Your task to perform on an android device: turn pop-ups off in chrome Image 0: 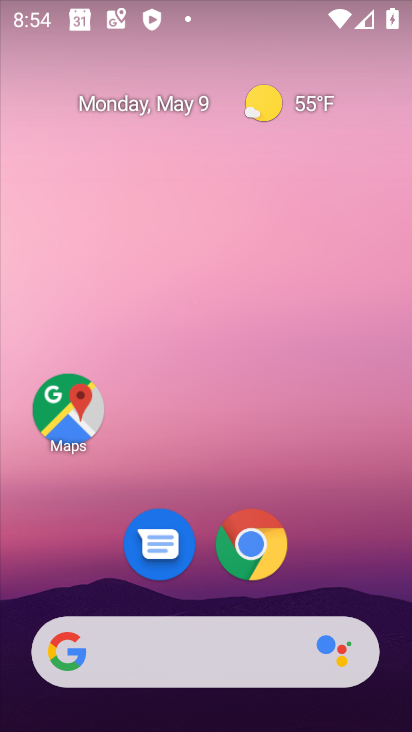
Step 0: click (247, 568)
Your task to perform on an android device: turn pop-ups off in chrome Image 1: 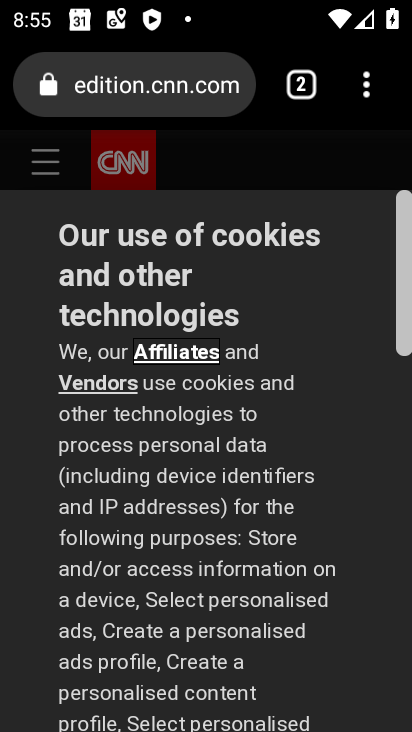
Step 1: click (351, 85)
Your task to perform on an android device: turn pop-ups off in chrome Image 2: 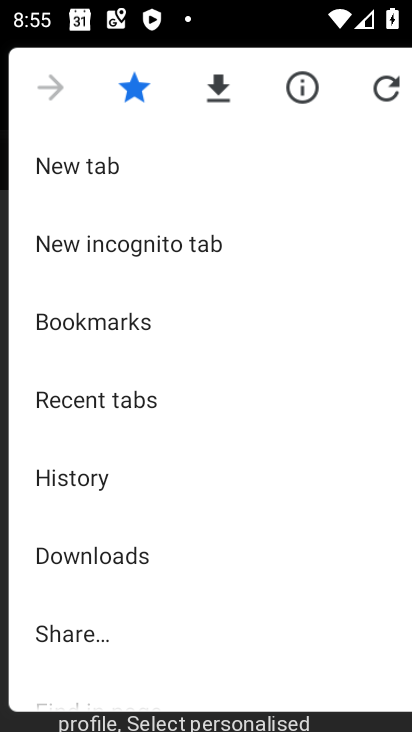
Step 2: drag from (229, 709) to (218, 433)
Your task to perform on an android device: turn pop-ups off in chrome Image 3: 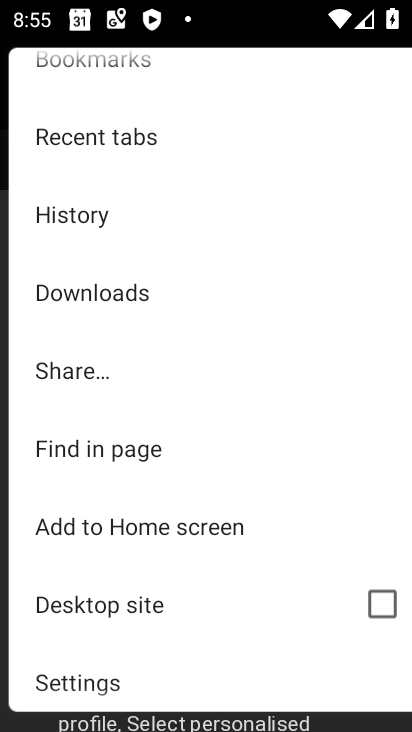
Step 3: drag from (178, 576) to (189, 411)
Your task to perform on an android device: turn pop-ups off in chrome Image 4: 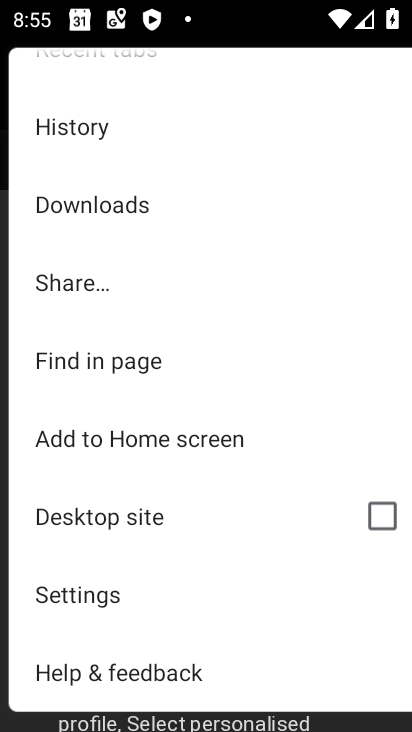
Step 4: click (51, 587)
Your task to perform on an android device: turn pop-ups off in chrome Image 5: 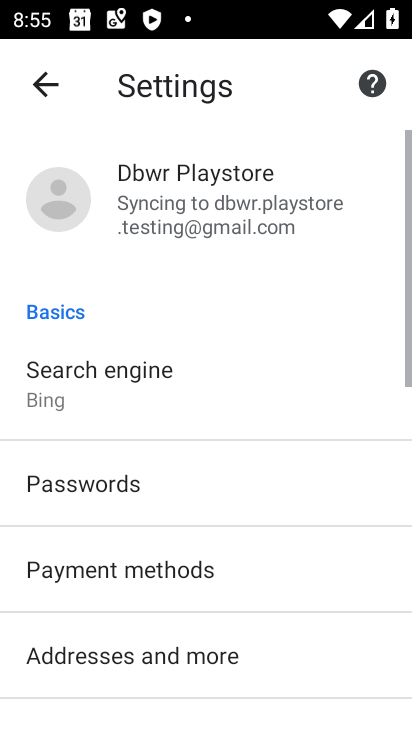
Step 5: drag from (132, 631) to (165, 366)
Your task to perform on an android device: turn pop-ups off in chrome Image 6: 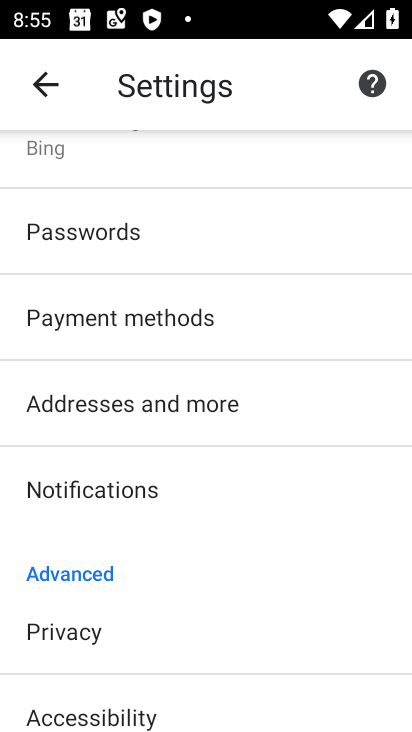
Step 6: drag from (115, 648) to (144, 427)
Your task to perform on an android device: turn pop-ups off in chrome Image 7: 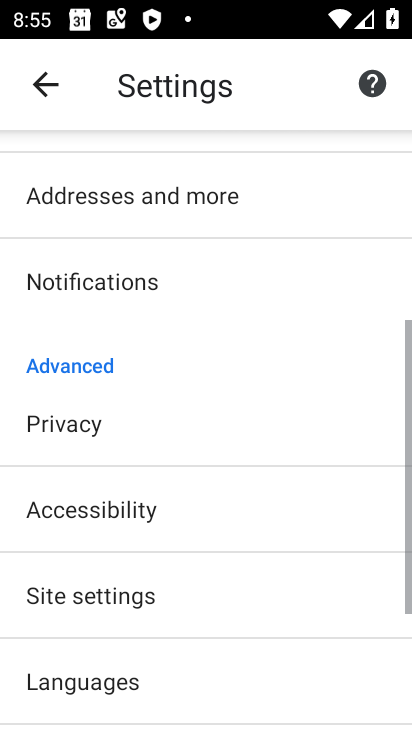
Step 7: click (113, 613)
Your task to perform on an android device: turn pop-ups off in chrome Image 8: 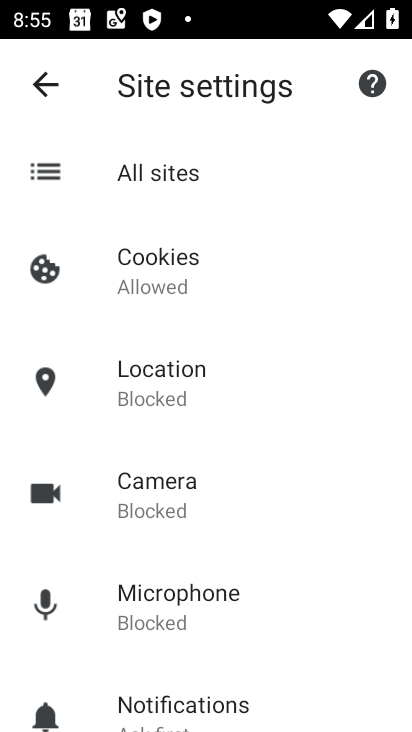
Step 8: drag from (167, 614) to (201, 384)
Your task to perform on an android device: turn pop-ups off in chrome Image 9: 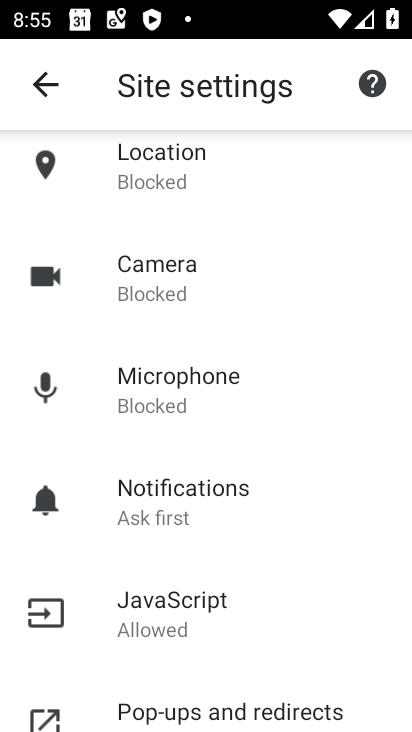
Step 9: drag from (231, 599) to (219, 402)
Your task to perform on an android device: turn pop-ups off in chrome Image 10: 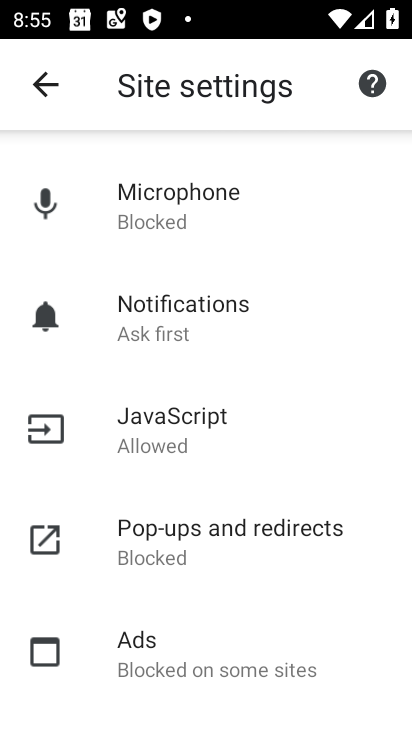
Step 10: click (198, 517)
Your task to perform on an android device: turn pop-ups off in chrome Image 11: 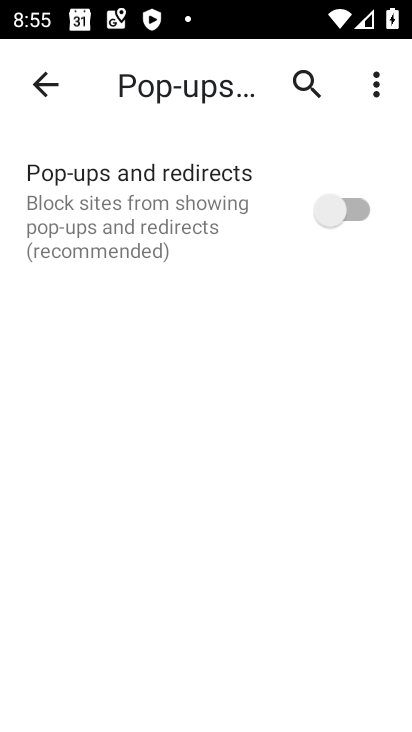
Step 11: task complete